Your task to perform on an android device: Open network settings Image 0: 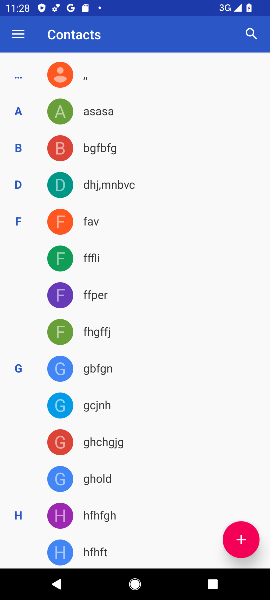
Step 0: press back button
Your task to perform on an android device: Open network settings Image 1: 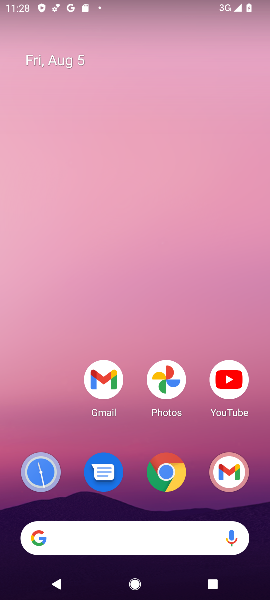
Step 1: drag from (201, 430) to (117, 103)
Your task to perform on an android device: Open network settings Image 2: 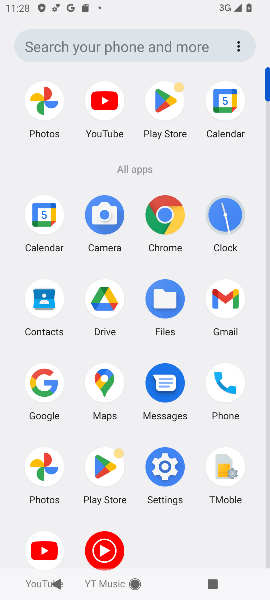
Step 2: click (166, 483)
Your task to perform on an android device: Open network settings Image 3: 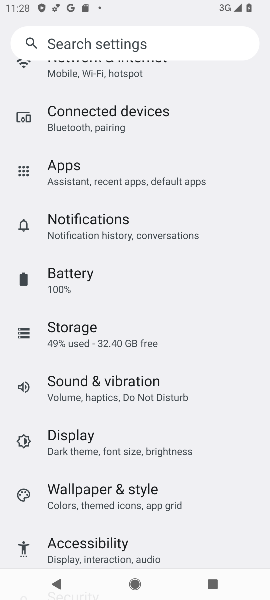
Step 3: drag from (168, 72) to (157, 430)
Your task to perform on an android device: Open network settings Image 4: 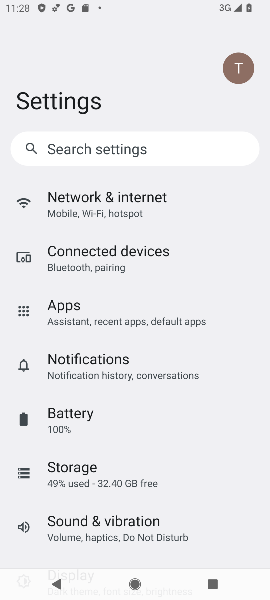
Step 4: click (188, 208)
Your task to perform on an android device: Open network settings Image 5: 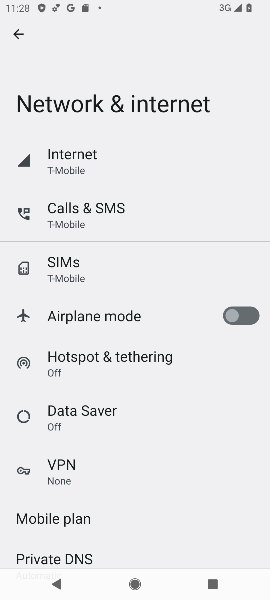
Step 5: task complete